Your task to perform on an android device: turn off priority inbox in the gmail app Image 0: 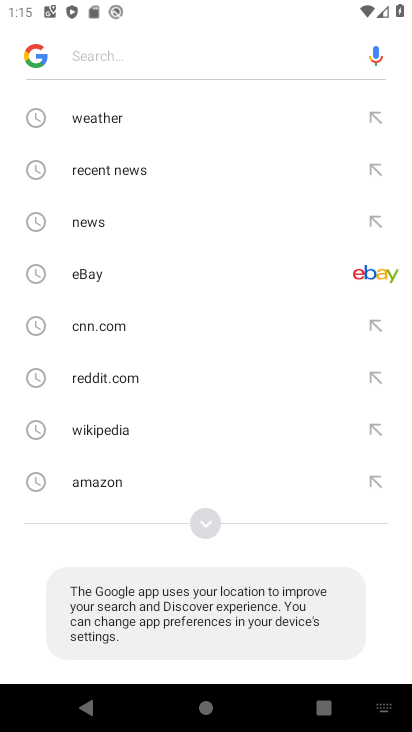
Step 0: press back button
Your task to perform on an android device: turn off priority inbox in the gmail app Image 1: 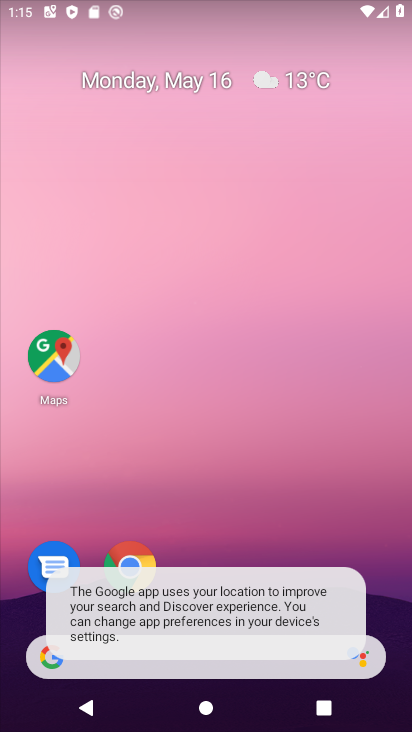
Step 1: drag from (204, 651) to (325, 151)
Your task to perform on an android device: turn off priority inbox in the gmail app Image 2: 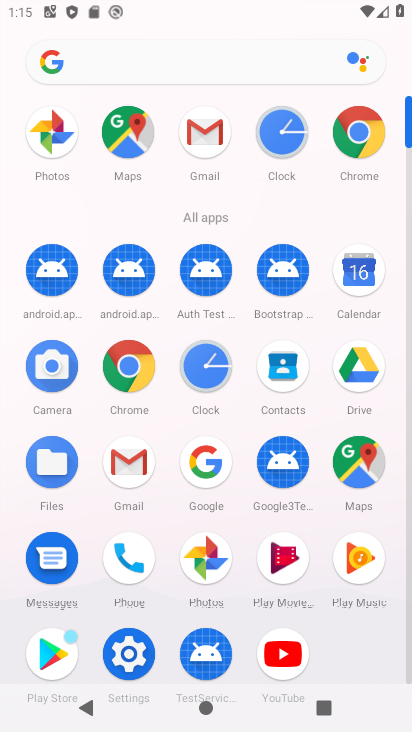
Step 2: click (129, 462)
Your task to perform on an android device: turn off priority inbox in the gmail app Image 3: 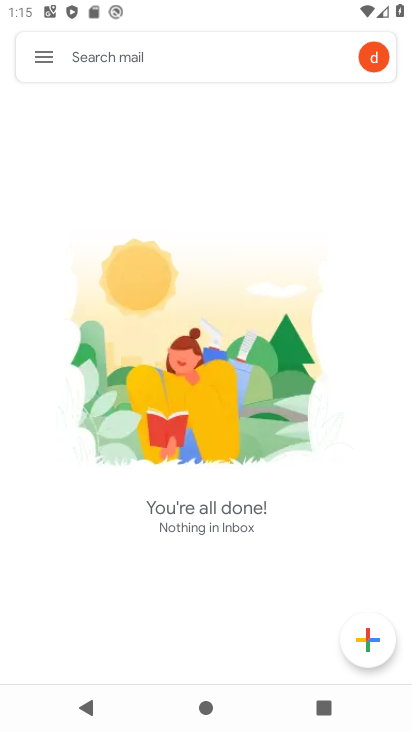
Step 3: click (55, 68)
Your task to perform on an android device: turn off priority inbox in the gmail app Image 4: 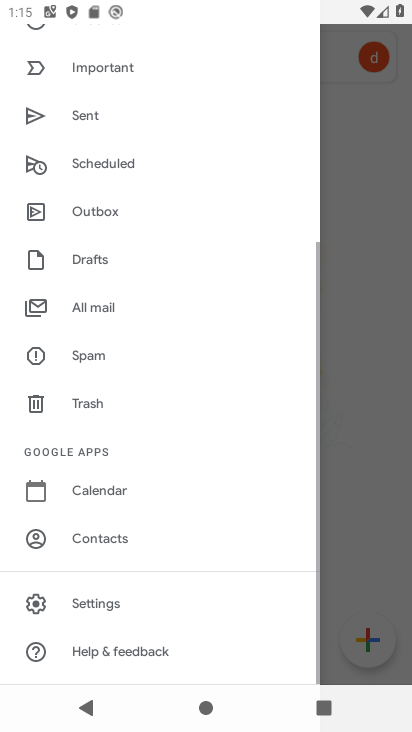
Step 4: drag from (129, 607) to (213, 324)
Your task to perform on an android device: turn off priority inbox in the gmail app Image 5: 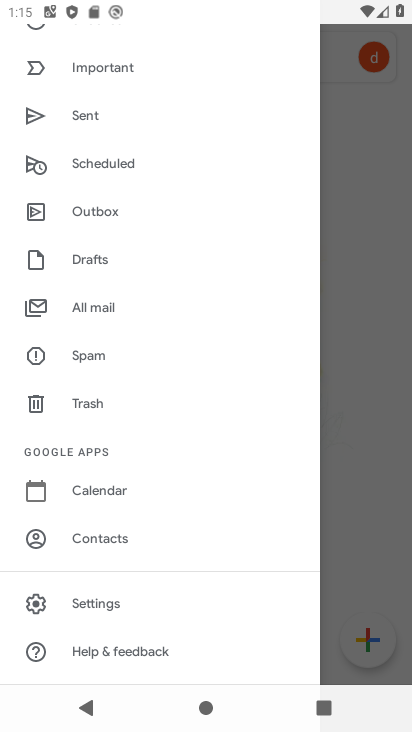
Step 5: click (134, 606)
Your task to perform on an android device: turn off priority inbox in the gmail app Image 6: 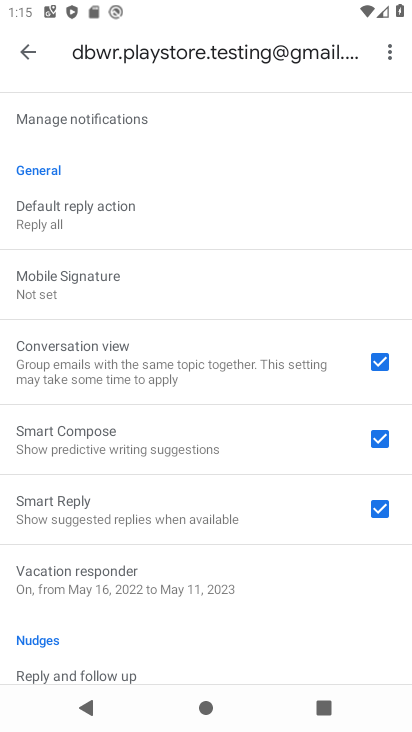
Step 6: drag from (112, 585) to (206, 278)
Your task to perform on an android device: turn off priority inbox in the gmail app Image 7: 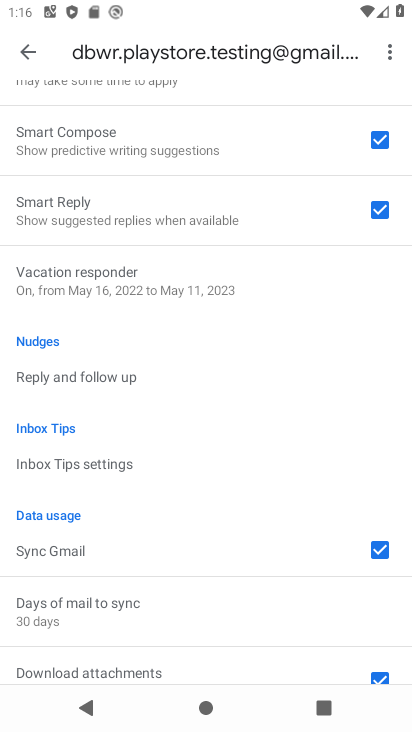
Step 7: drag from (165, 297) to (148, 708)
Your task to perform on an android device: turn off priority inbox in the gmail app Image 8: 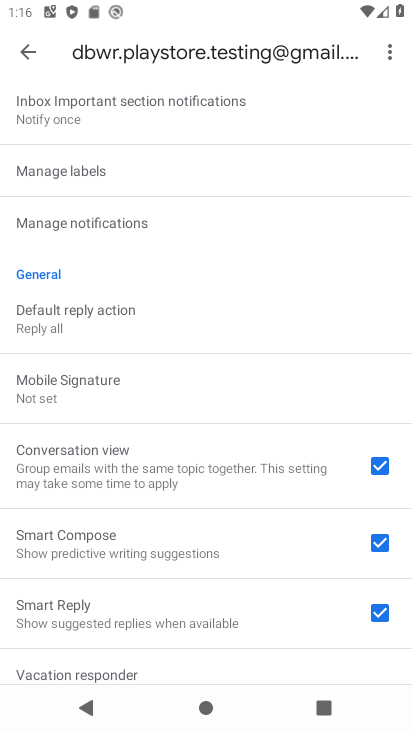
Step 8: drag from (158, 250) to (124, 590)
Your task to perform on an android device: turn off priority inbox in the gmail app Image 9: 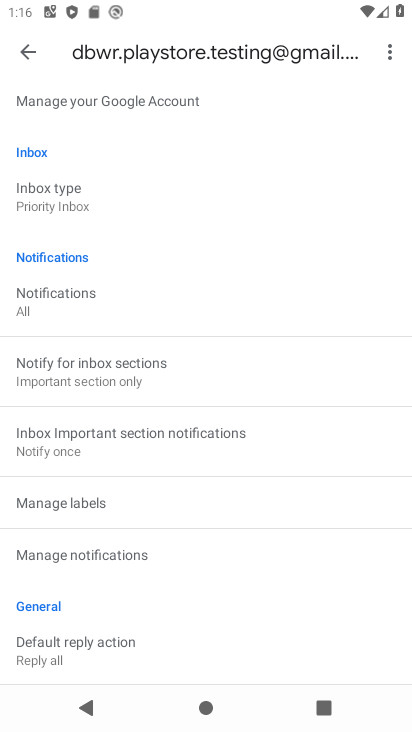
Step 9: click (109, 200)
Your task to perform on an android device: turn off priority inbox in the gmail app Image 10: 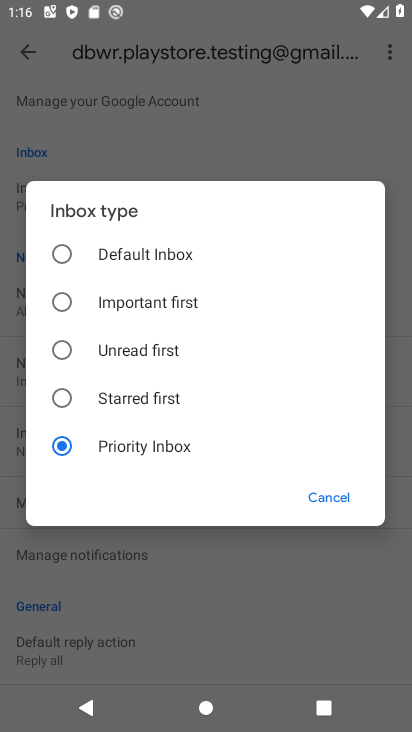
Step 10: click (63, 258)
Your task to perform on an android device: turn off priority inbox in the gmail app Image 11: 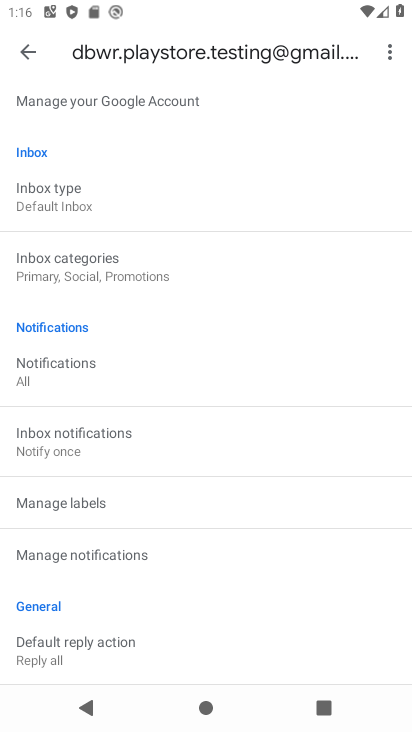
Step 11: task complete